Your task to perform on an android device: Open display settings Image 0: 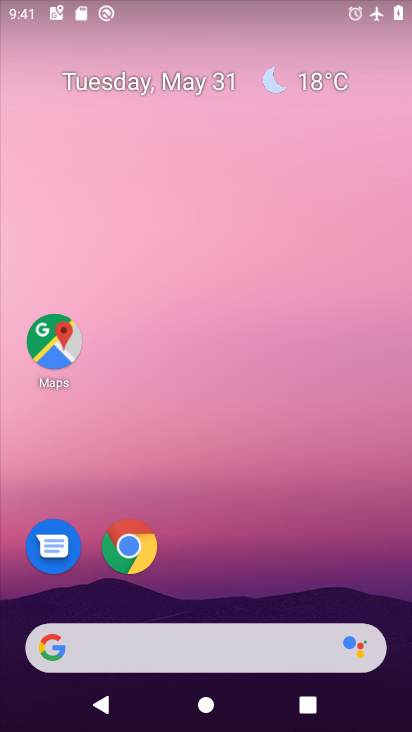
Step 0: drag from (234, 590) to (256, 129)
Your task to perform on an android device: Open display settings Image 1: 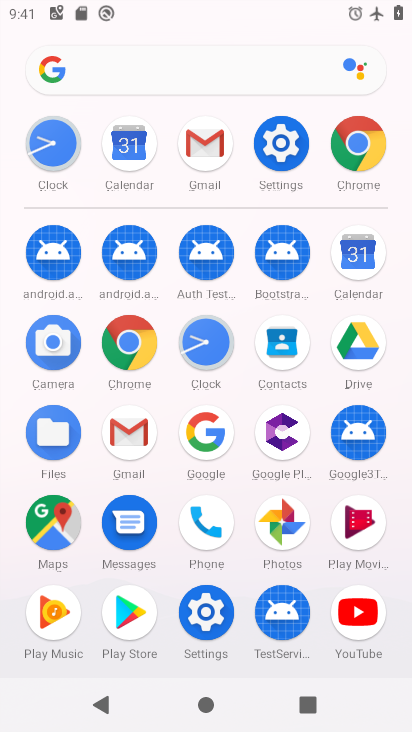
Step 1: click (279, 157)
Your task to perform on an android device: Open display settings Image 2: 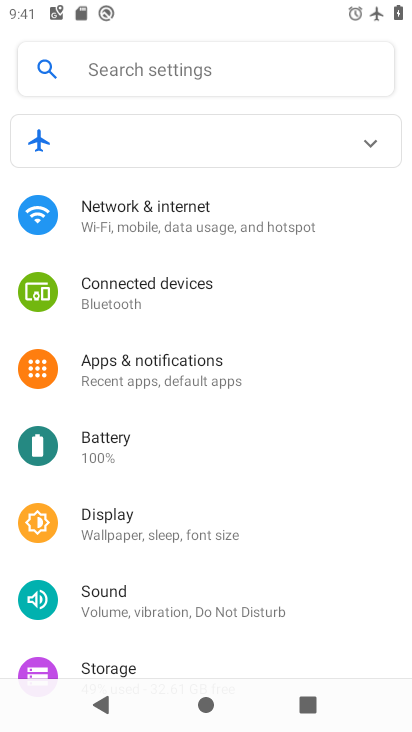
Step 2: click (153, 540)
Your task to perform on an android device: Open display settings Image 3: 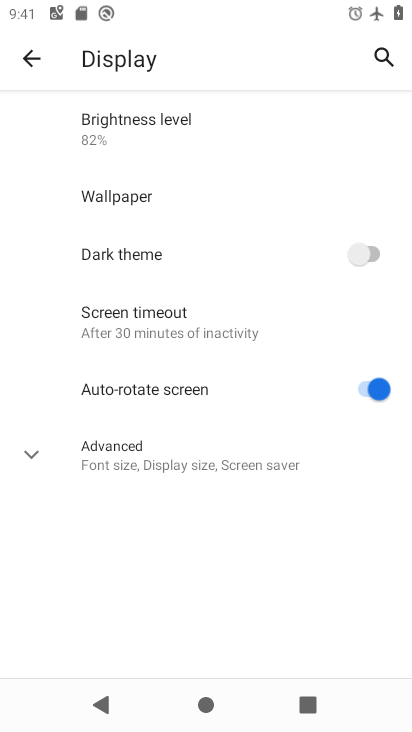
Step 3: task complete